Your task to perform on an android device: Open the calendar and show me this week's events? Image 0: 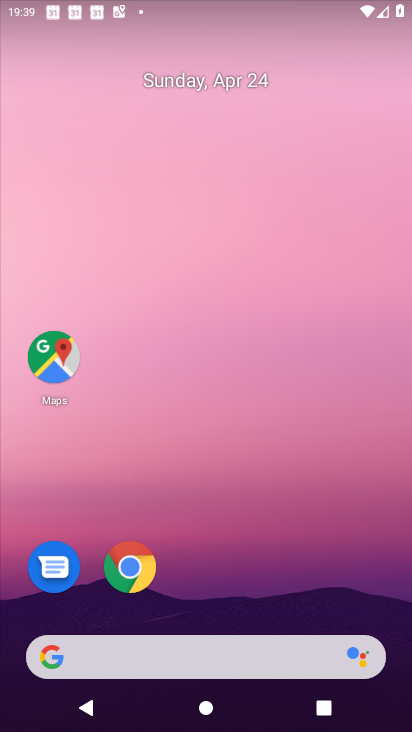
Step 0: drag from (272, 660) to (154, 115)
Your task to perform on an android device: Open the calendar and show me this week's events? Image 1: 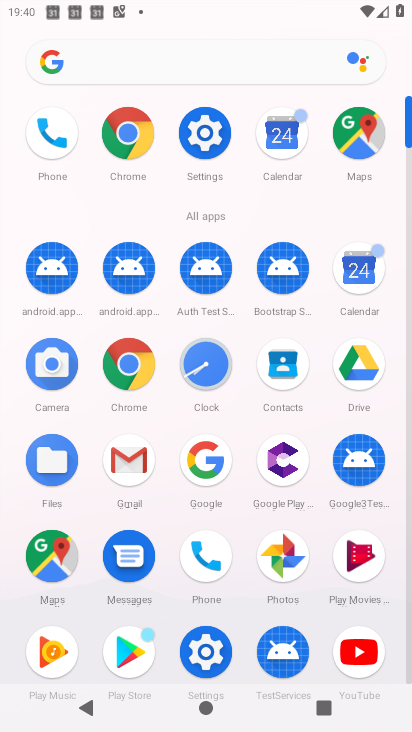
Step 1: click (286, 137)
Your task to perform on an android device: Open the calendar and show me this week's events? Image 2: 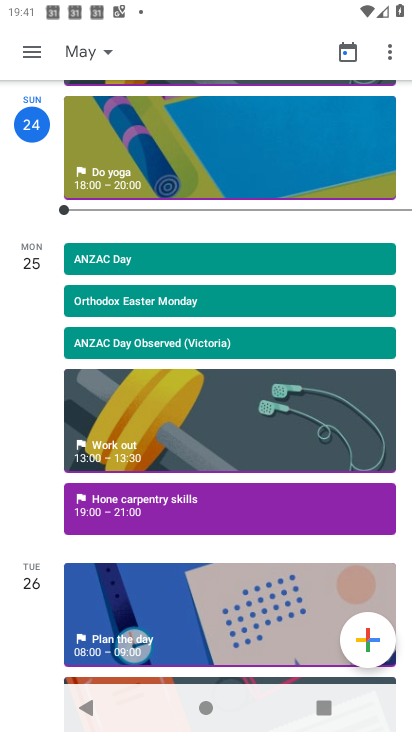
Step 2: click (36, 50)
Your task to perform on an android device: Open the calendar and show me this week's events? Image 3: 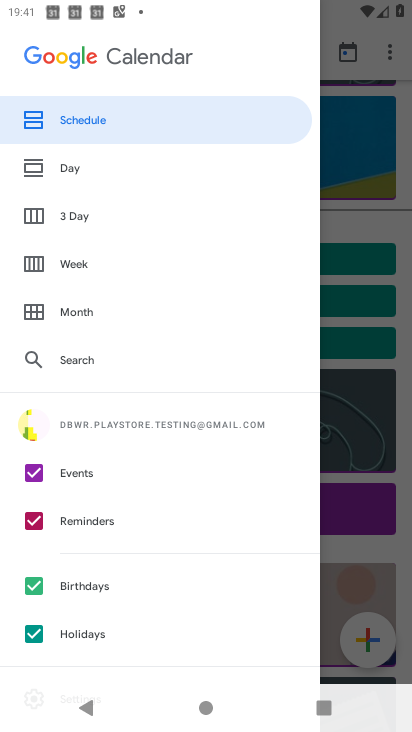
Step 3: click (55, 261)
Your task to perform on an android device: Open the calendar and show me this week's events? Image 4: 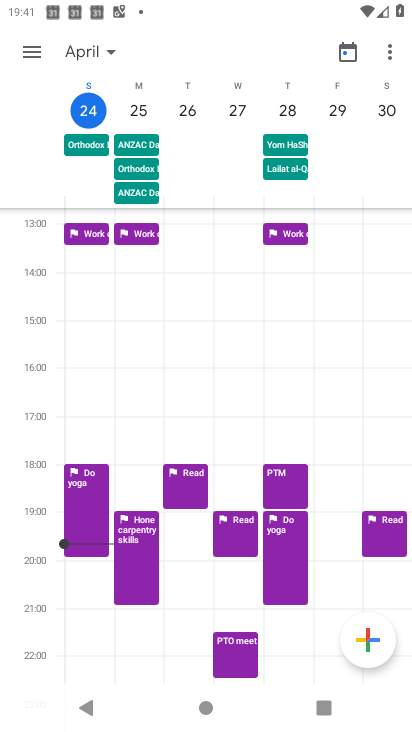
Step 4: task complete